Your task to perform on an android device: What's on my calendar today? Image 0: 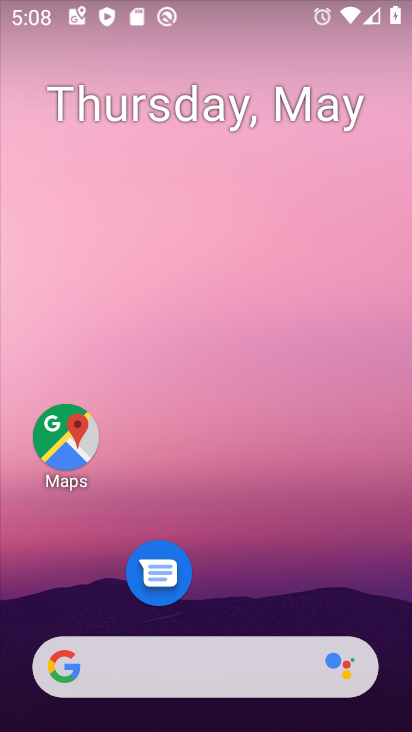
Step 0: drag from (270, 435) to (356, 15)
Your task to perform on an android device: What's on my calendar today? Image 1: 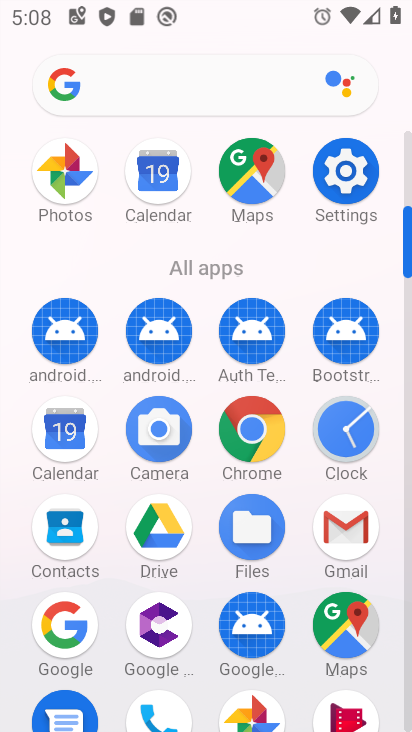
Step 1: click (169, 191)
Your task to perform on an android device: What's on my calendar today? Image 2: 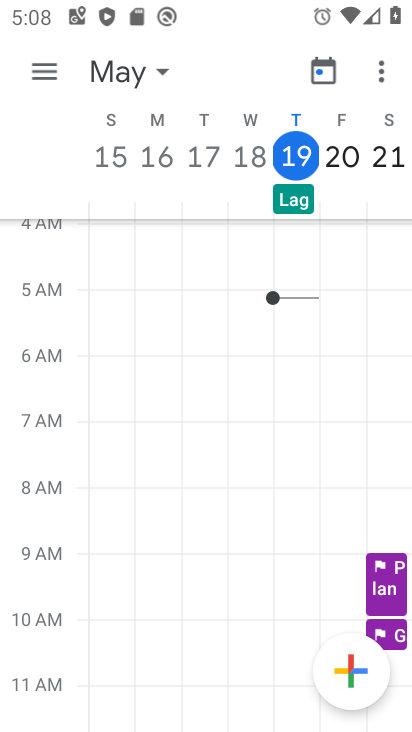
Step 2: press home button
Your task to perform on an android device: What's on my calendar today? Image 3: 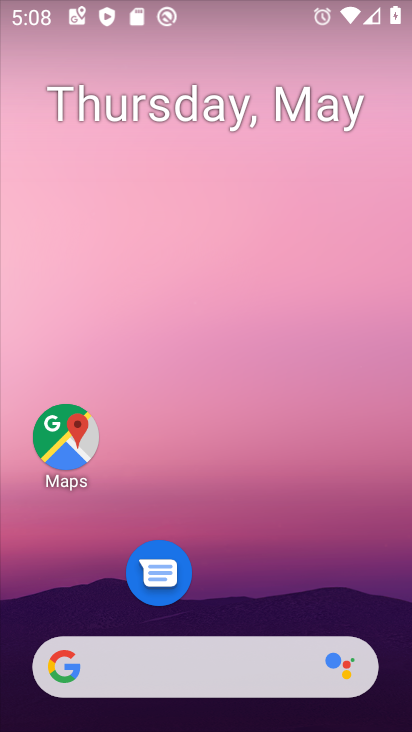
Step 3: click (221, 167)
Your task to perform on an android device: What's on my calendar today? Image 4: 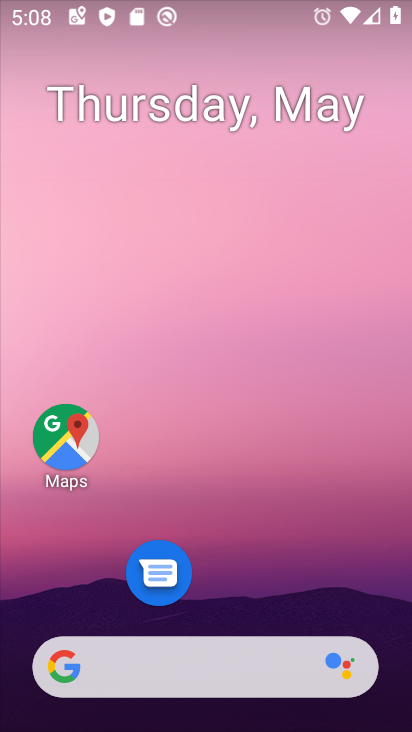
Step 4: drag from (241, 595) to (234, 63)
Your task to perform on an android device: What's on my calendar today? Image 5: 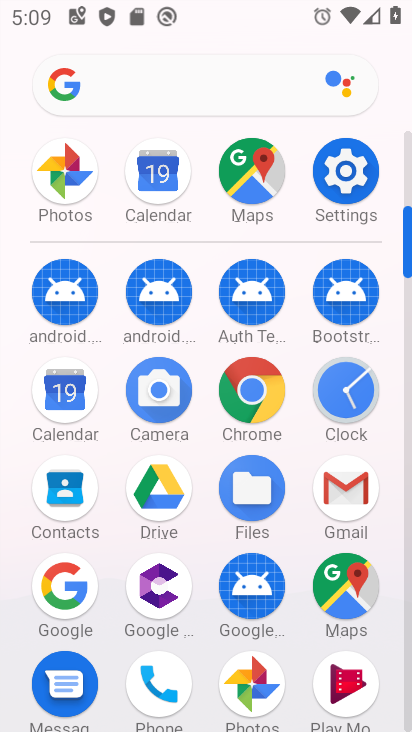
Step 5: click (155, 199)
Your task to perform on an android device: What's on my calendar today? Image 6: 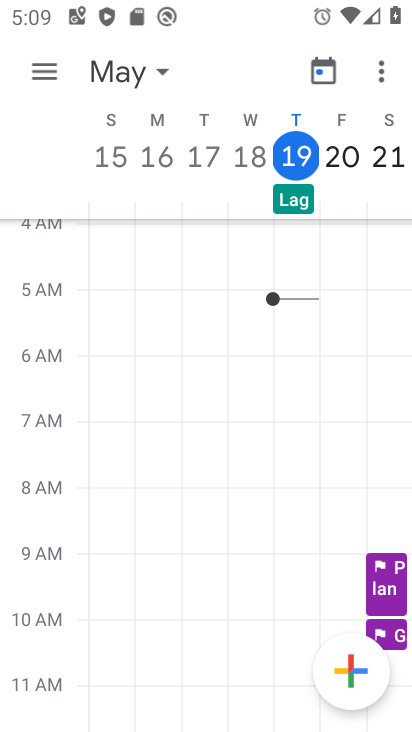
Step 6: click (130, 74)
Your task to perform on an android device: What's on my calendar today? Image 7: 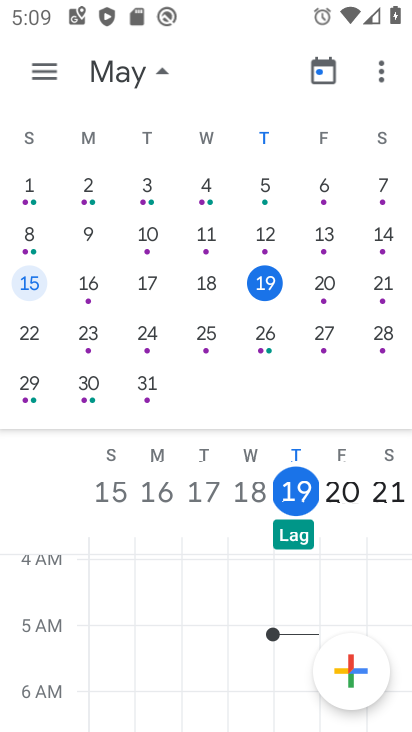
Step 7: click (52, 66)
Your task to perform on an android device: What's on my calendar today? Image 8: 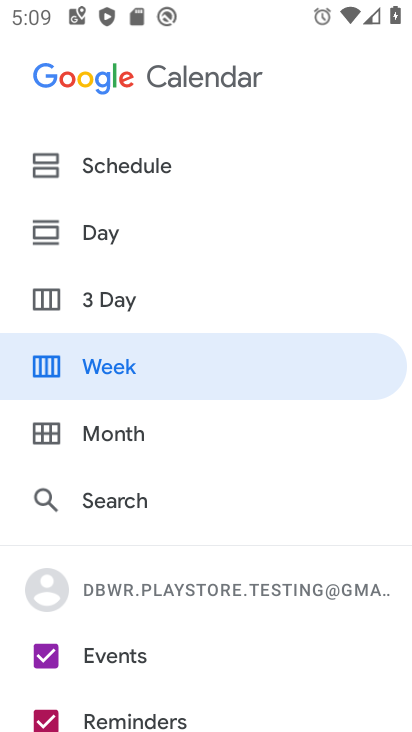
Step 8: click (107, 163)
Your task to perform on an android device: What's on my calendar today? Image 9: 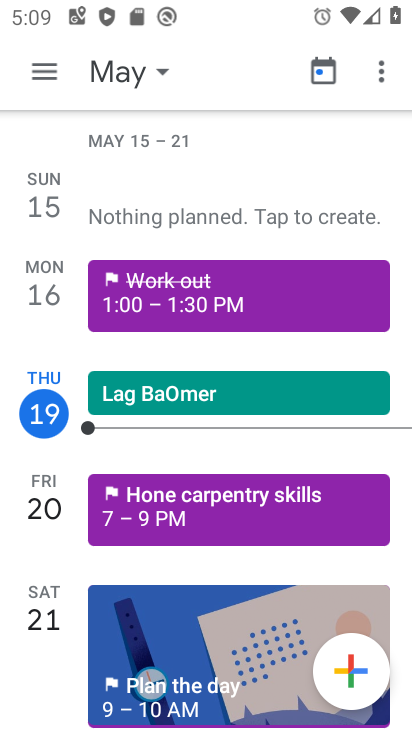
Step 9: drag from (210, 635) to (208, 150)
Your task to perform on an android device: What's on my calendar today? Image 10: 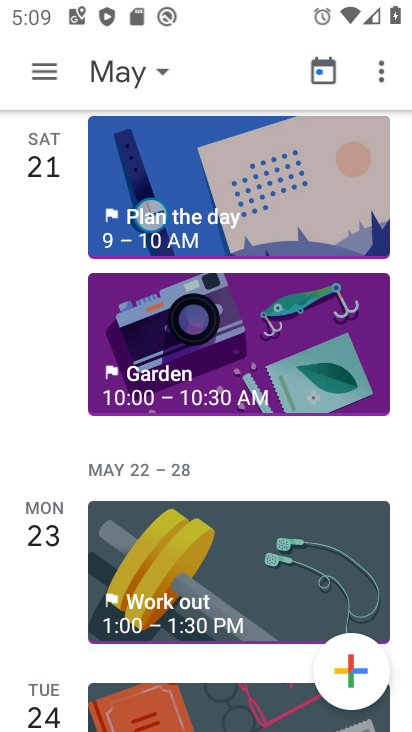
Step 10: click (206, 427)
Your task to perform on an android device: What's on my calendar today? Image 11: 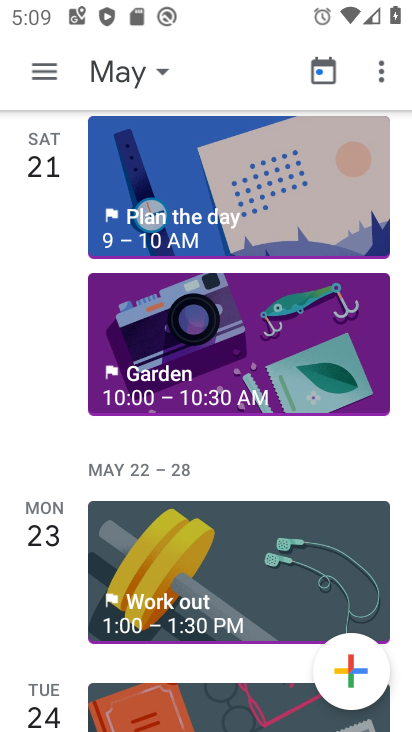
Step 11: task complete